Your task to perform on an android device: How do I get to the nearest AT&T Store? Image 0: 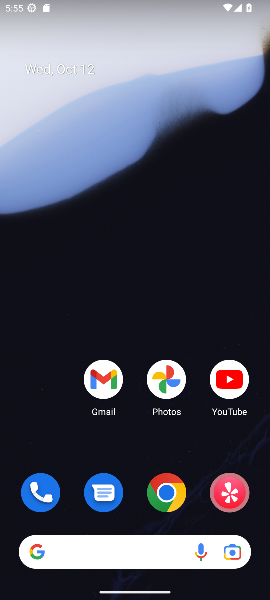
Step 0: click (174, 493)
Your task to perform on an android device: How do I get to the nearest AT&T Store? Image 1: 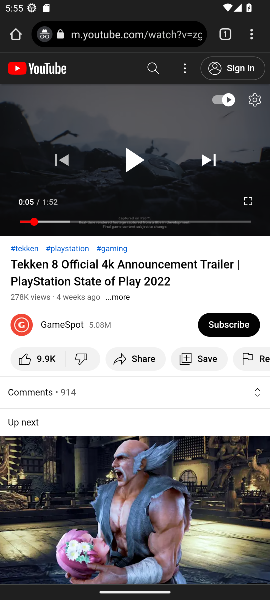
Step 1: click (119, 33)
Your task to perform on an android device: How do I get to the nearest AT&T Store? Image 2: 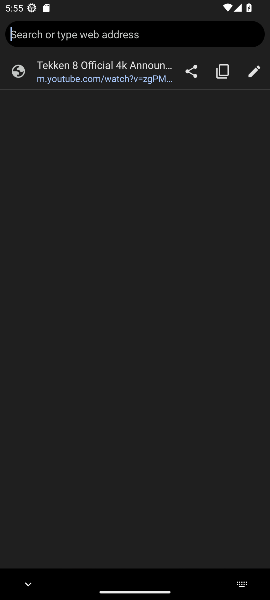
Step 2: type " nearest AT&T Store"
Your task to perform on an android device: How do I get to the nearest AT&T Store? Image 3: 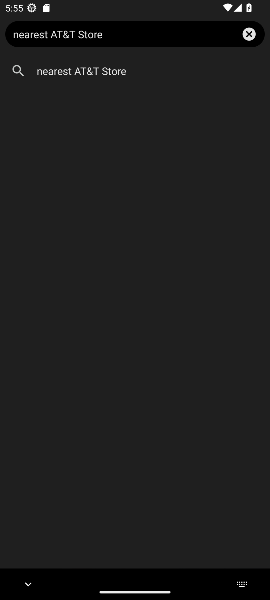
Step 3: click (76, 76)
Your task to perform on an android device: How do I get to the nearest AT&T Store? Image 4: 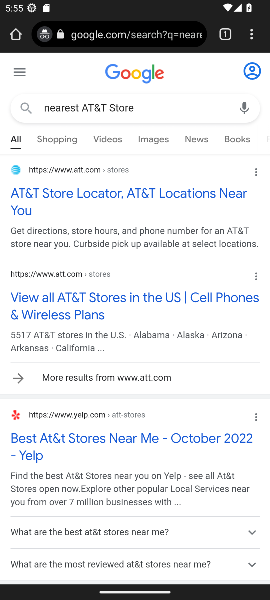
Step 4: drag from (86, 428) to (90, 110)
Your task to perform on an android device: How do I get to the nearest AT&T Store? Image 5: 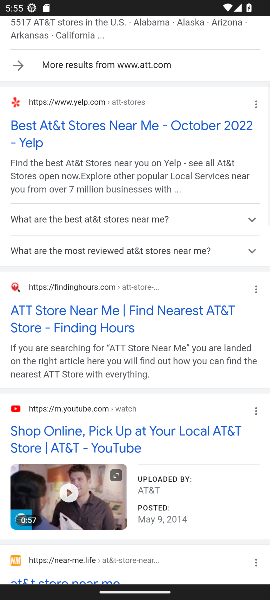
Step 5: drag from (88, 438) to (90, 129)
Your task to perform on an android device: How do I get to the nearest AT&T Store? Image 6: 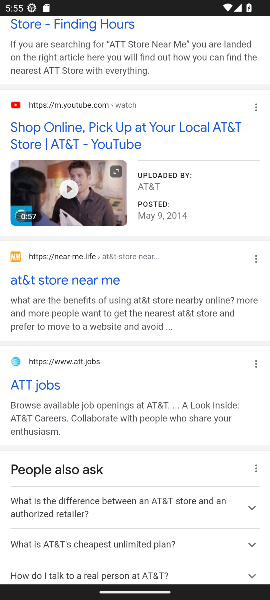
Step 6: drag from (119, 402) to (123, 183)
Your task to perform on an android device: How do I get to the nearest AT&T Store? Image 7: 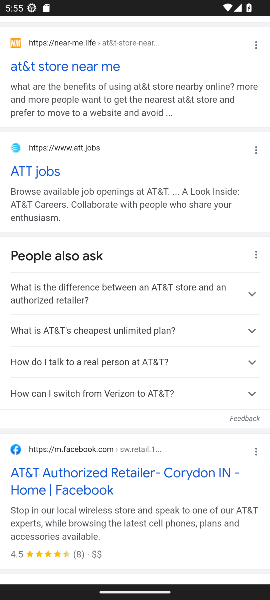
Step 7: drag from (123, 242) to (152, 593)
Your task to perform on an android device: How do I get to the nearest AT&T Store? Image 8: 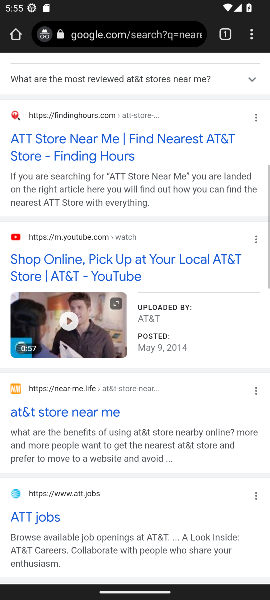
Step 8: drag from (134, 189) to (153, 591)
Your task to perform on an android device: How do I get to the nearest AT&T Store? Image 9: 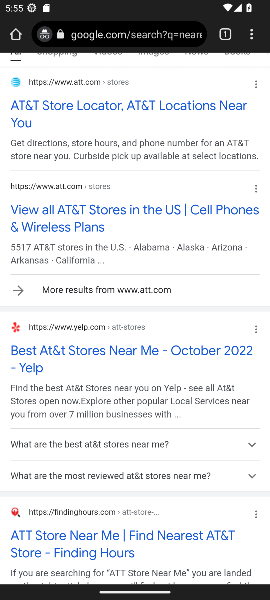
Step 9: drag from (133, 163) to (153, 474)
Your task to perform on an android device: How do I get to the nearest AT&T Store? Image 10: 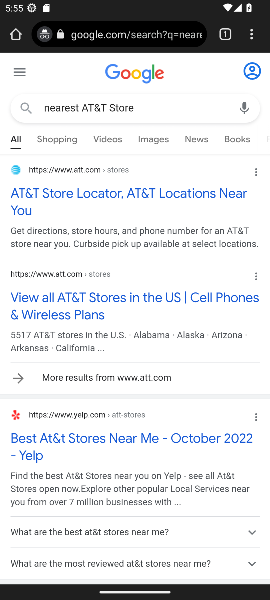
Step 10: click (86, 198)
Your task to perform on an android device: How do I get to the nearest AT&T Store? Image 11: 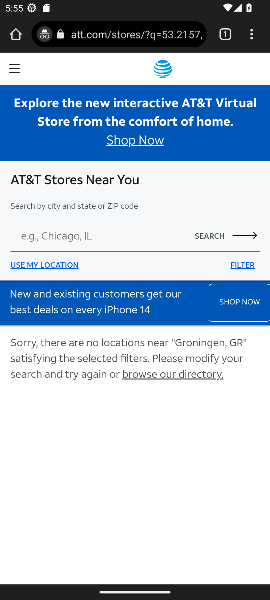
Step 11: drag from (143, 381) to (136, 143)
Your task to perform on an android device: How do I get to the nearest AT&T Store? Image 12: 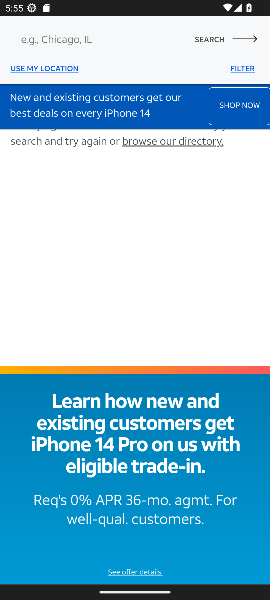
Step 12: drag from (128, 316) to (117, 122)
Your task to perform on an android device: How do I get to the nearest AT&T Store? Image 13: 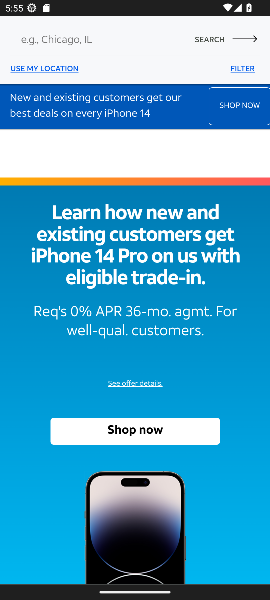
Step 13: drag from (153, 392) to (145, 10)
Your task to perform on an android device: How do I get to the nearest AT&T Store? Image 14: 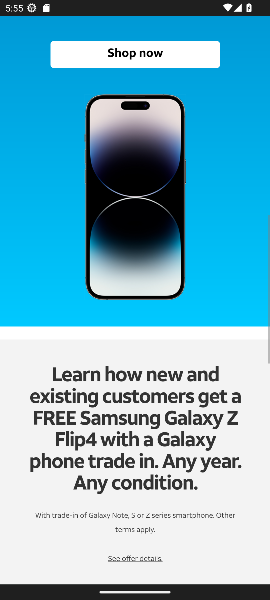
Step 14: drag from (158, 332) to (129, 34)
Your task to perform on an android device: How do I get to the nearest AT&T Store? Image 15: 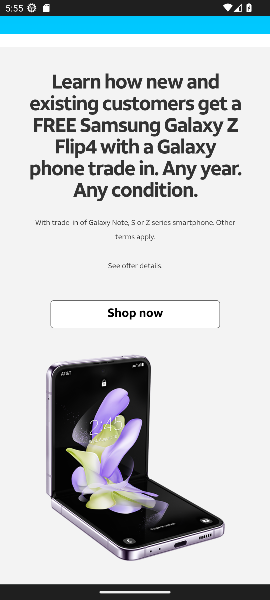
Step 15: drag from (162, 374) to (139, 160)
Your task to perform on an android device: How do I get to the nearest AT&T Store? Image 16: 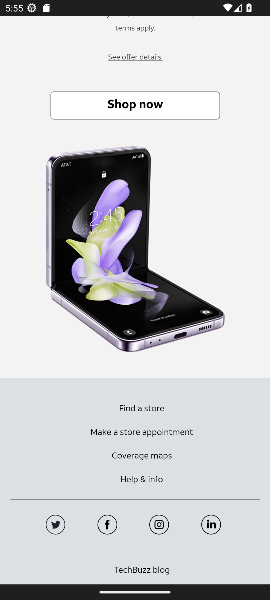
Step 16: drag from (139, 160) to (203, 596)
Your task to perform on an android device: How do I get to the nearest AT&T Store? Image 17: 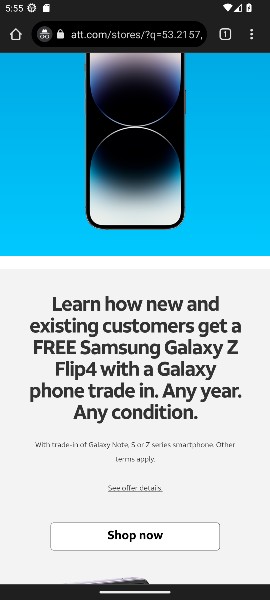
Step 17: drag from (144, 267) to (185, 570)
Your task to perform on an android device: How do I get to the nearest AT&T Store? Image 18: 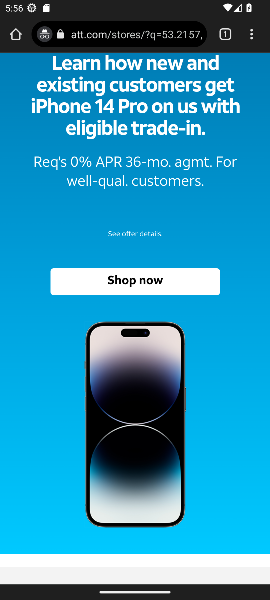
Step 18: drag from (106, 237) to (99, 599)
Your task to perform on an android device: How do I get to the nearest AT&T Store? Image 19: 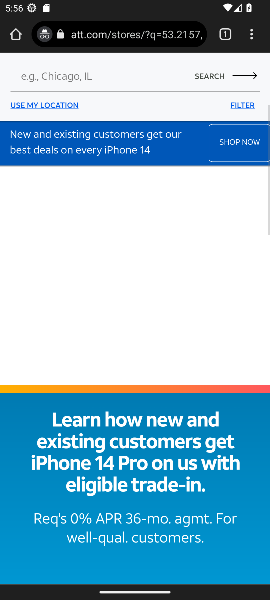
Step 19: drag from (82, 247) to (95, 414)
Your task to perform on an android device: How do I get to the nearest AT&T Store? Image 20: 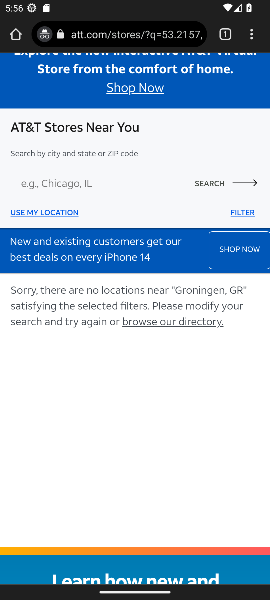
Step 20: drag from (67, 137) to (54, 410)
Your task to perform on an android device: How do I get to the nearest AT&T Store? Image 21: 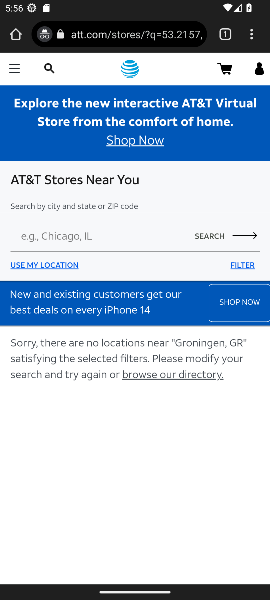
Step 21: press back button
Your task to perform on an android device: How do I get to the nearest AT&T Store? Image 22: 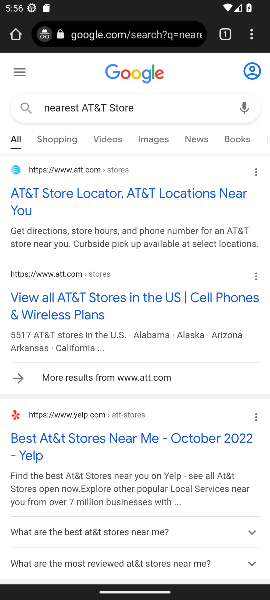
Step 22: click (92, 306)
Your task to perform on an android device: How do I get to the nearest AT&T Store? Image 23: 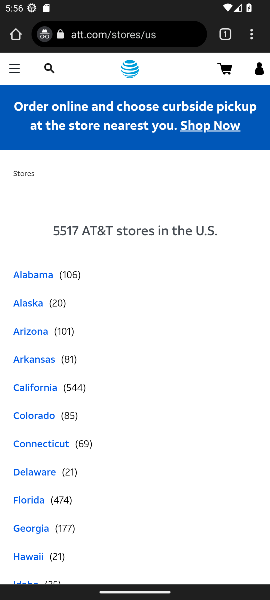
Step 23: drag from (119, 406) to (113, 294)
Your task to perform on an android device: How do I get to the nearest AT&T Store? Image 24: 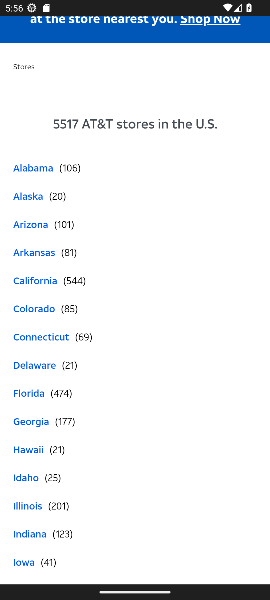
Step 24: drag from (117, 423) to (125, 124)
Your task to perform on an android device: How do I get to the nearest AT&T Store? Image 25: 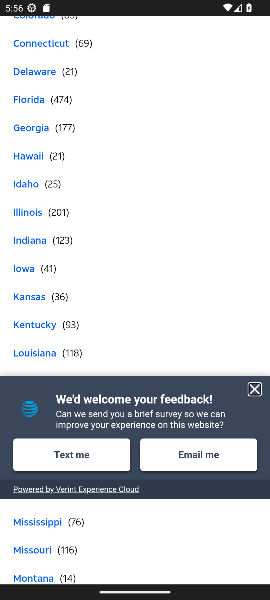
Step 25: drag from (95, 468) to (100, 134)
Your task to perform on an android device: How do I get to the nearest AT&T Store? Image 26: 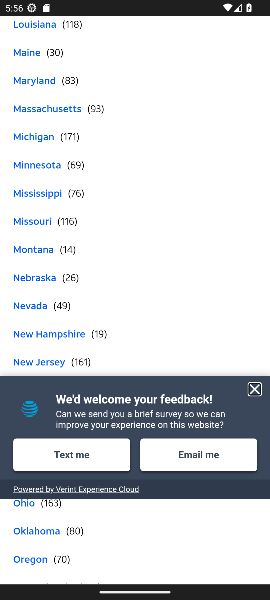
Step 26: press back button
Your task to perform on an android device: How do I get to the nearest AT&T Store? Image 27: 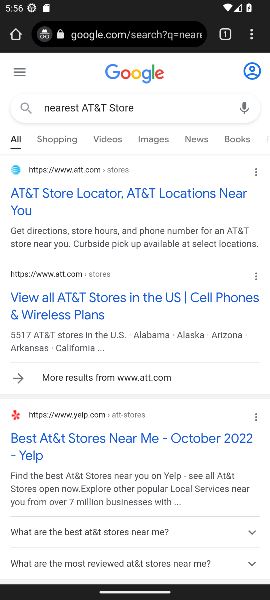
Step 27: drag from (107, 406) to (118, 212)
Your task to perform on an android device: How do I get to the nearest AT&T Store? Image 28: 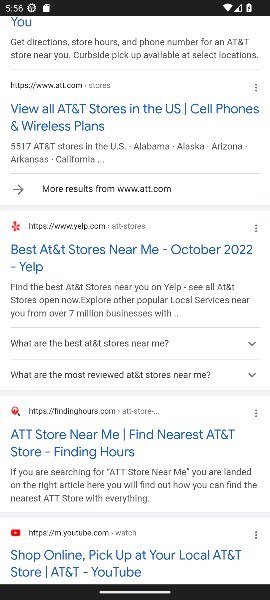
Step 28: click (70, 246)
Your task to perform on an android device: How do I get to the nearest AT&T Store? Image 29: 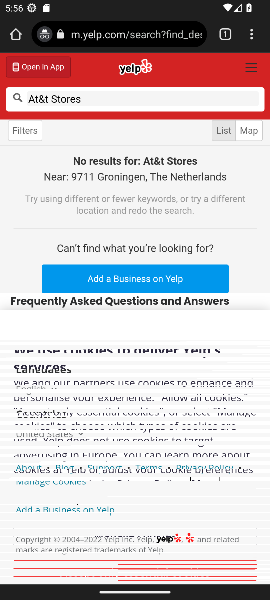
Step 29: task complete